Your task to perform on an android device: turn off smart reply in the gmail app Image 0: 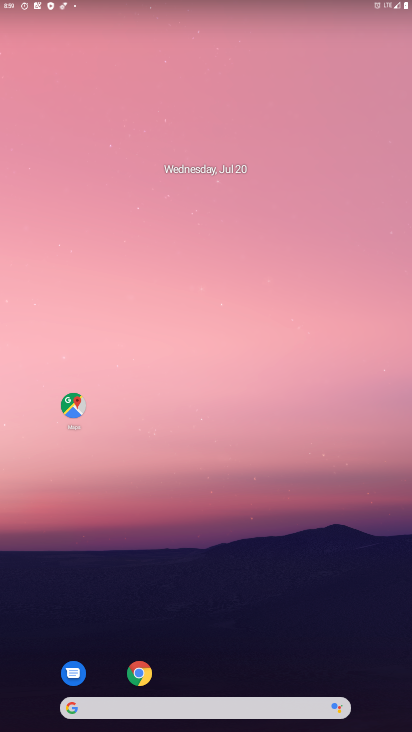
Step 0: drag from (205, 648) to (223, 78)
Your task to perform on an android device: turn off smart reply in the gmail app Image 1: 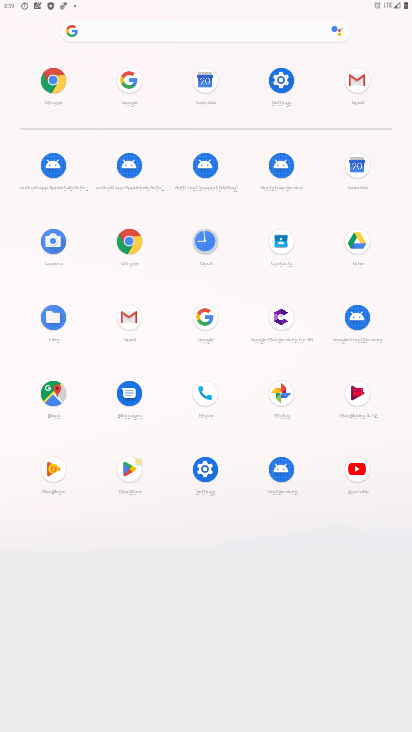
Step 1: click (132, 313)
Your task to perform on an android device: turn off smart reply in the gmail app Image 2: 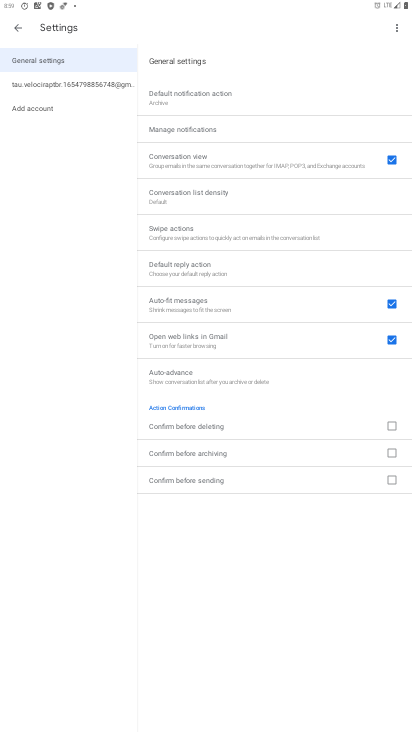
Step 2: click (79, 82)
Your task to perform on an android device: turn off smart reply in the gmail app Image 3: 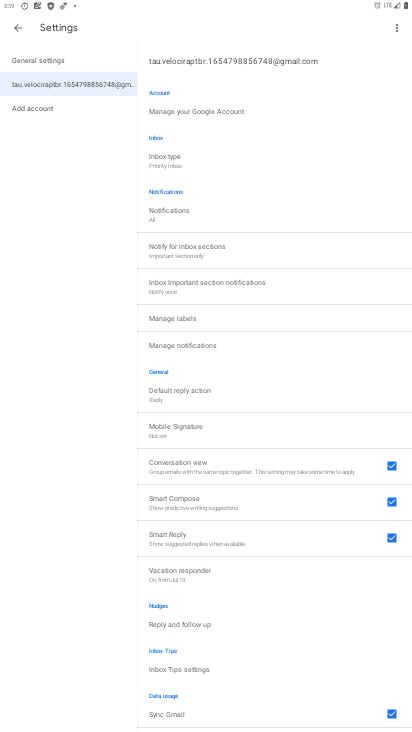
Step 3: drag from (241, 633) to (260, 150)
Your task to perform on an android device: turn off smart reply in the gmail app Image 4: 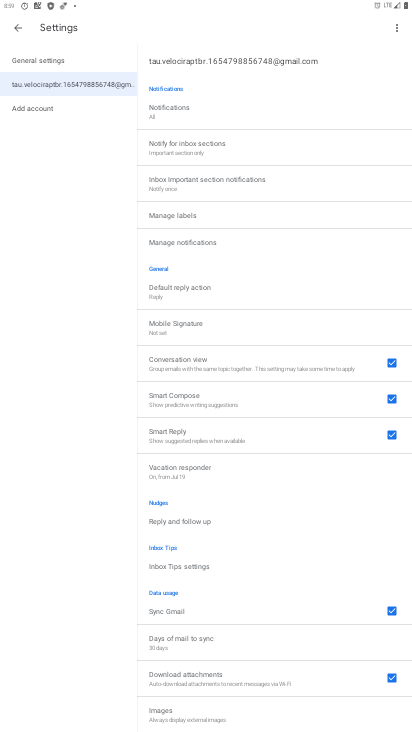
Step 4: click (388, 436)
Your task to perform on an android device: turn off smart reply in the gmail app Image 5: 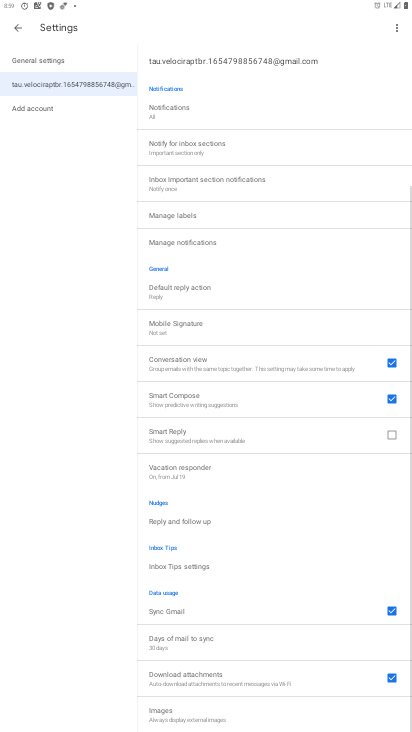
Step 5: task complete